Your task to perform on an android device: turn on sleep mode Image 0: 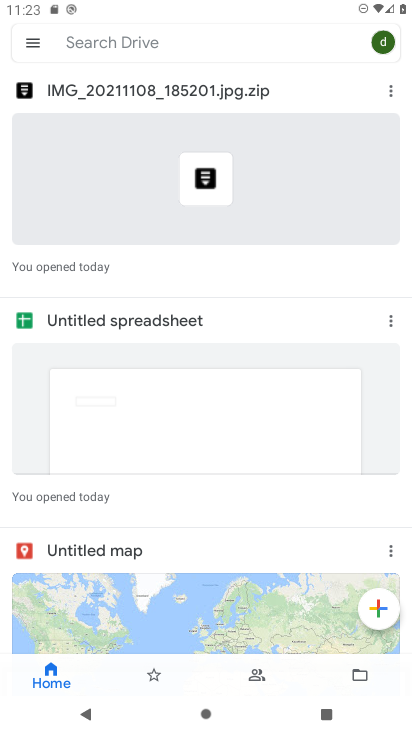
Step 0: press home button
Your task to perform on an android device: turn on sleep mode Image 1: 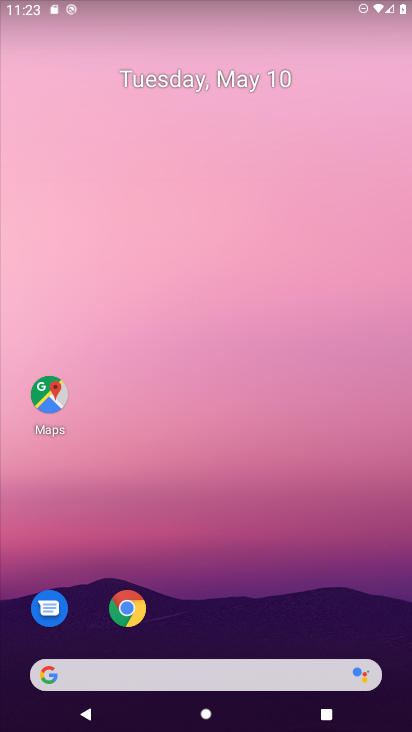
Step 1: drag from (276, 502) to (255, 94)
Your task to perform on an android device: turn on sleep mode Image 2: 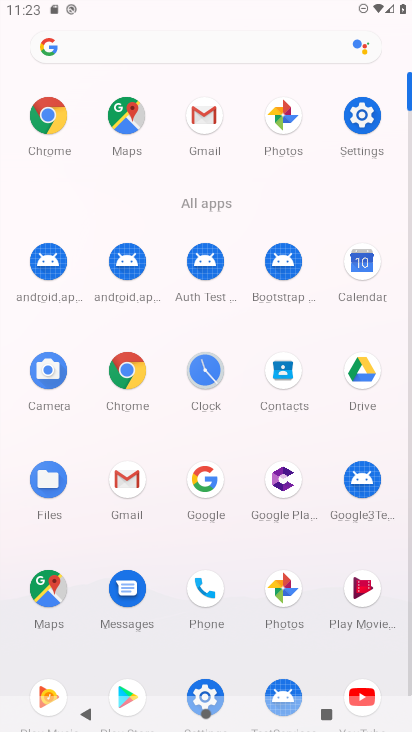
Step 2: click (364, 114)
Your task to perform on an android device: turn on sleep mode Image 3: 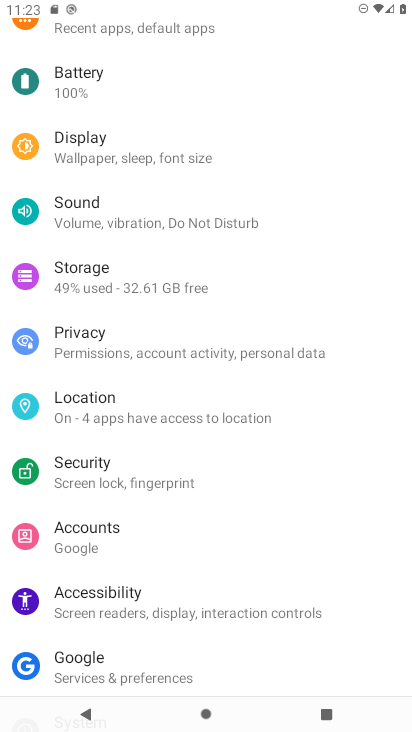
Step 3: click (133, 142)
Your task to perform on an android device: turn on sleep mode Image 4: 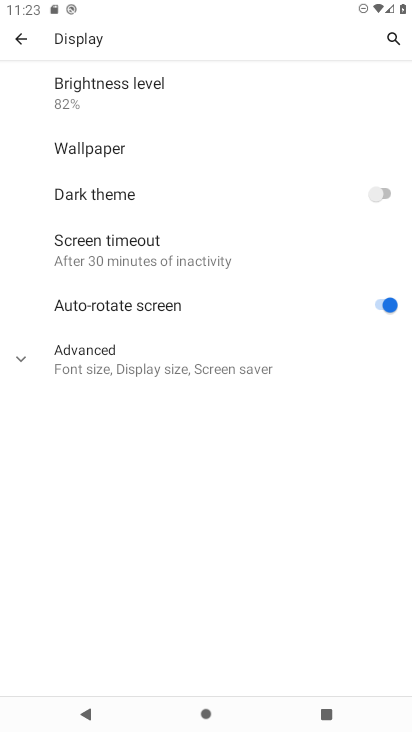
Step 4: click (14, 350)
Your task to perform on an android device: turn on sleep mode Image 5: 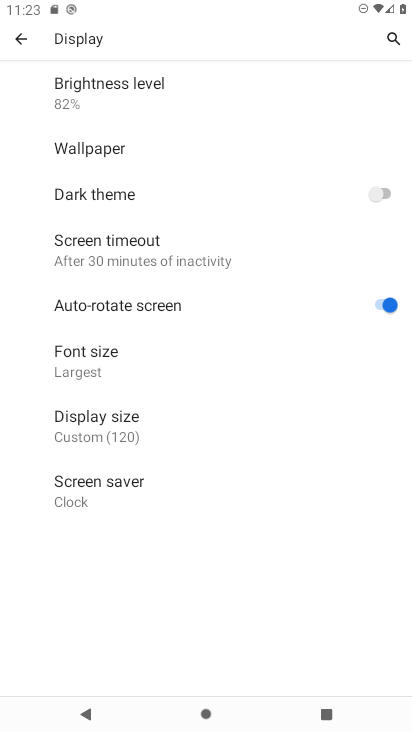
Step 5: task complete